Your task to perform on an android device: turn on translation in the chrome app Image 0: 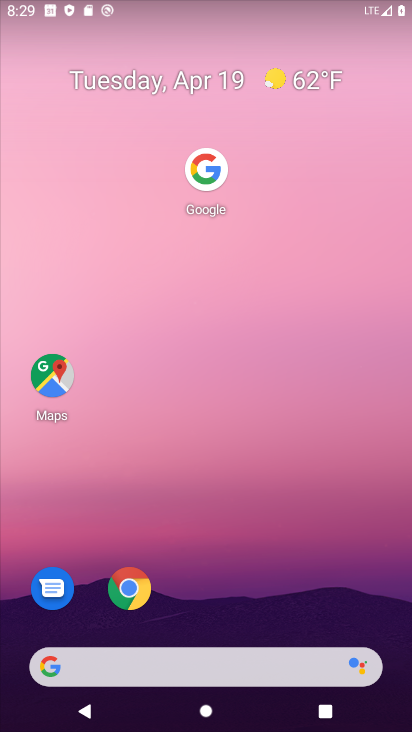
Step 0: click (129, 592)
Your task to perform on an android device: turn on translation in the chrome app Image 1: 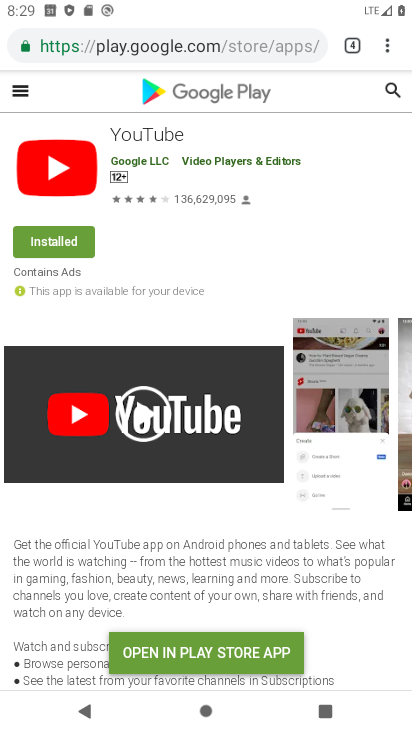
Step 1: click (386, 49)
Your task to perform on an android device: turn on translation in the chrome app Image 2: 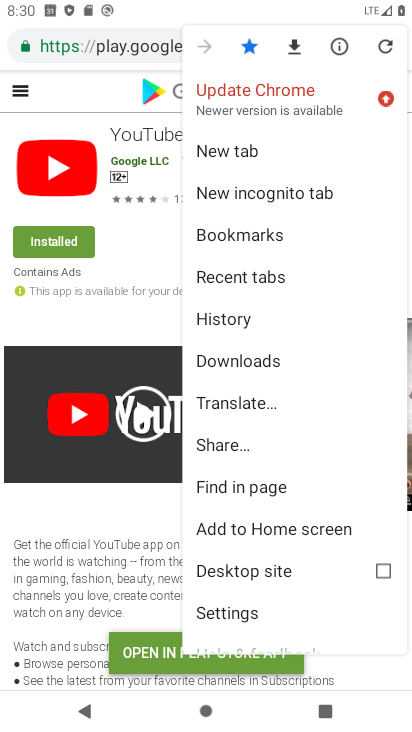
Step 2: click (247, 607)
Your task to perform on an android device: turn on translation in the chrome app Image 3: 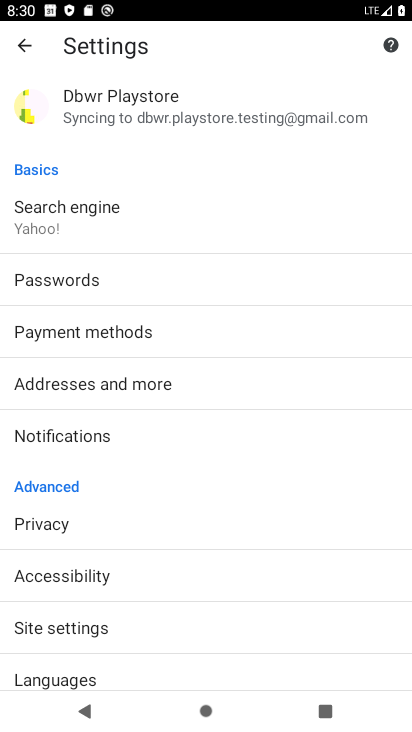
Step 3: click (71, 680)
Your task to perform on an android device: turn on translation in the chrome app Image 4: 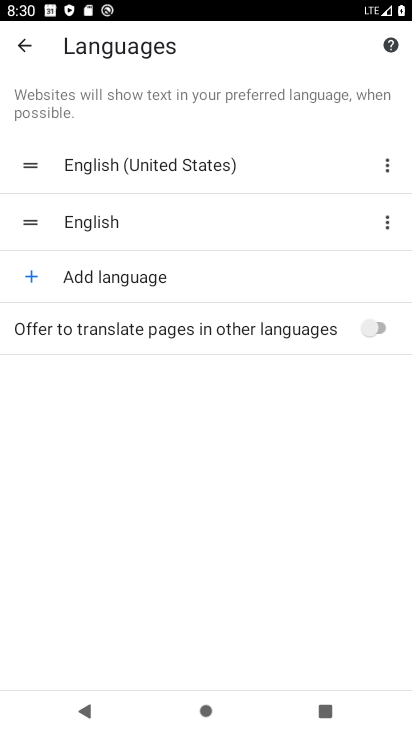
Step 4: click (371, 325)
Your task to perform on an android device: turn on translation in the chrome app Image 5: 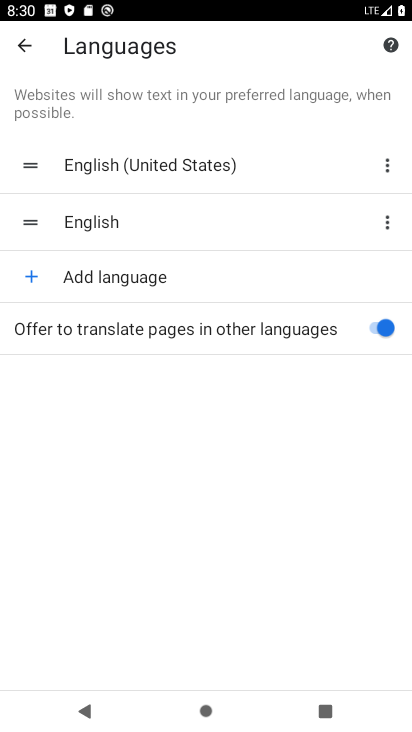
Step 5: task complete